Your task to perform on an android device: Open Yahoo.com Image 0: 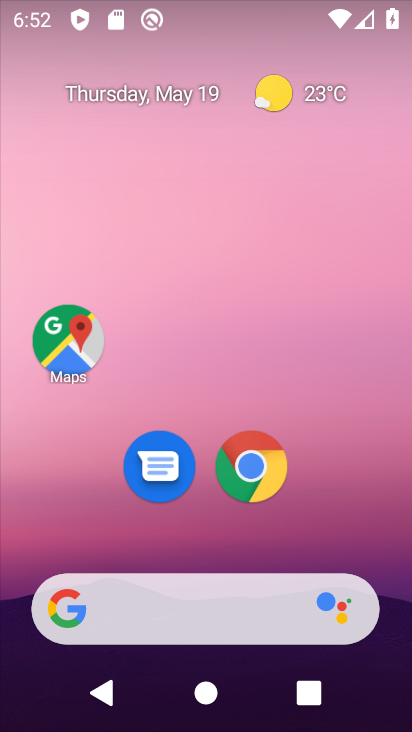
Step 0: click (250, 468)
Your task to perform on an android device: Open Yahoo.com Image 1: 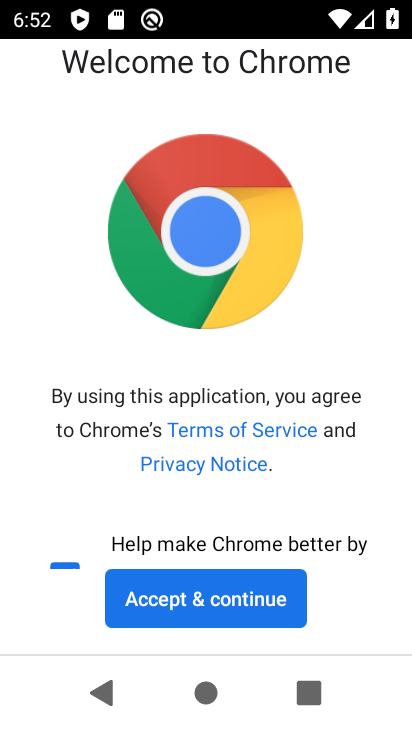
Step 1: click (202, 596)
Your task to perform on an android device: Open Yahoo.com Image 2: 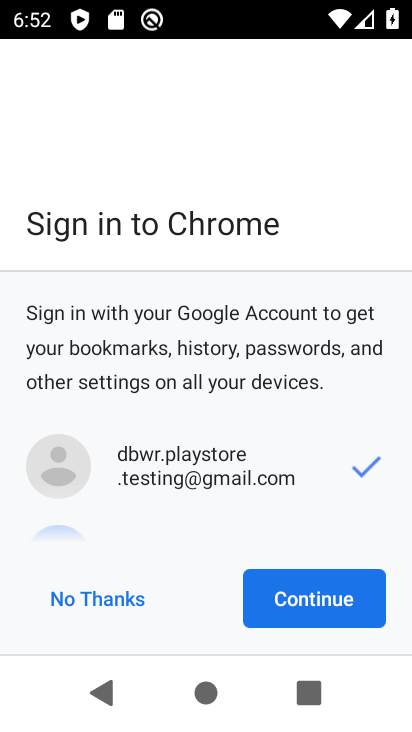
Step 2: click (361, 596)
Your task to perform on an android device: Open Yahoo.com Image 3: 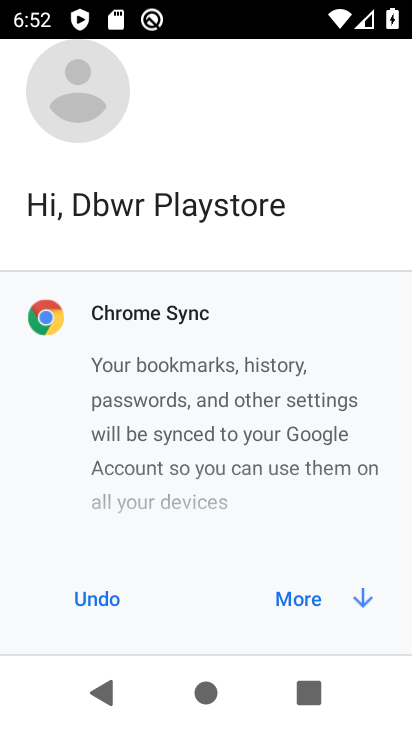
Step 3: click (361, 595)
Your task to perform on an android device: Open Yahoo.com Image 4: 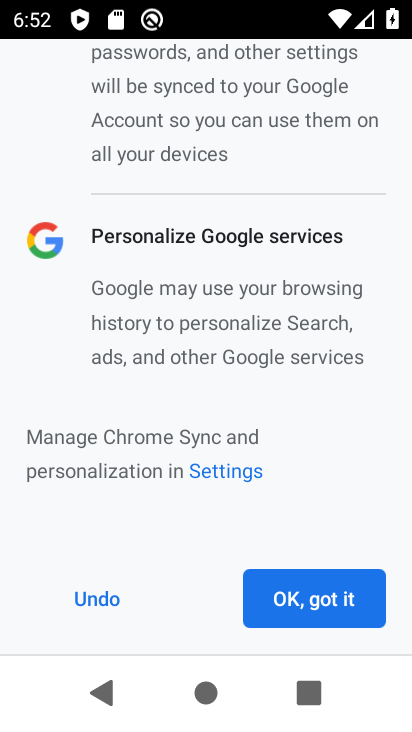
Step 4: click (282, 597)
Your task to perform on an android device: Open Yahoo.com Image 5: 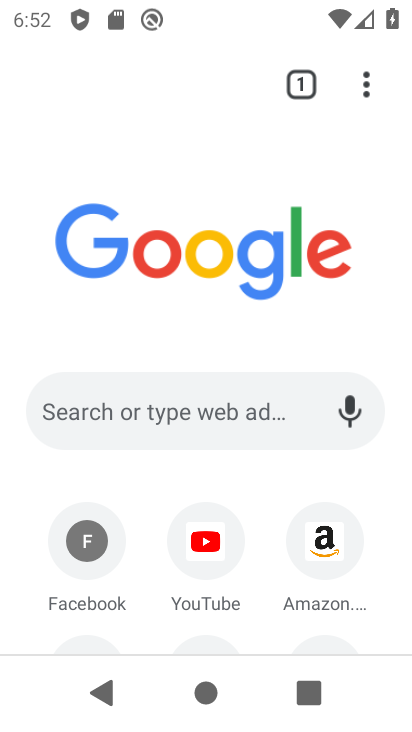
Step 5: drag from (170, 485) to (158, 291)
Your task to perform on an android device: Open Yahoo.com Image 6: 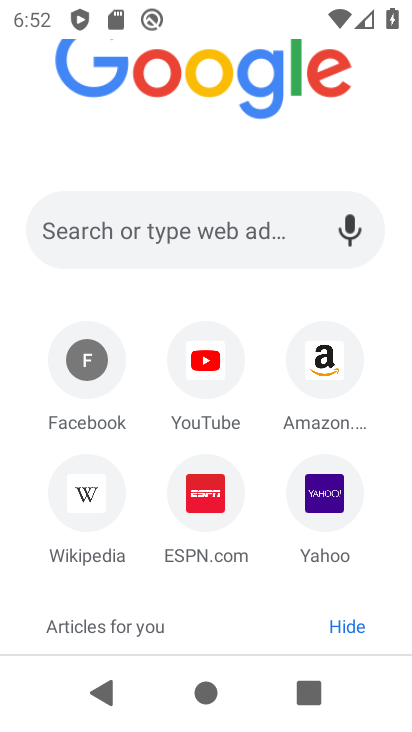
Step 6: click (318, 470)
Your task to perform on an android device: Open Yahoo.com Image 7: 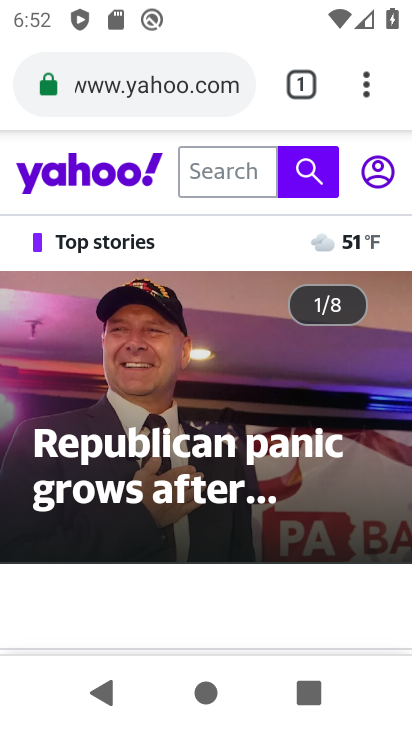
Step 7: task complete